Your task to perform on an android device: Set the phone to "Do not disturb". Image 0: 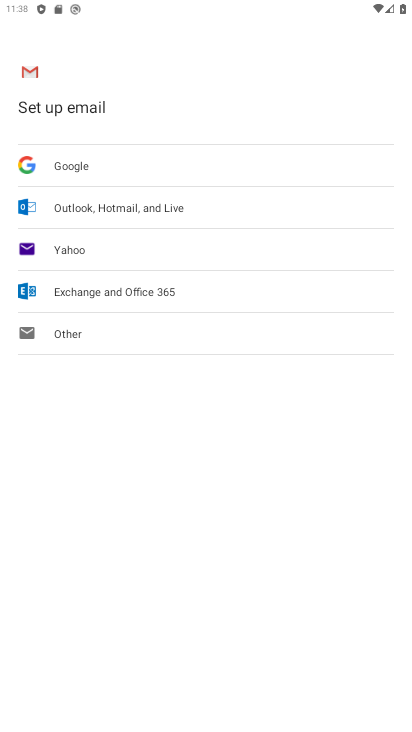
Step 0: press home button
Your task to perform on an android device: Set the phone to "Do not disturb". Image 1: 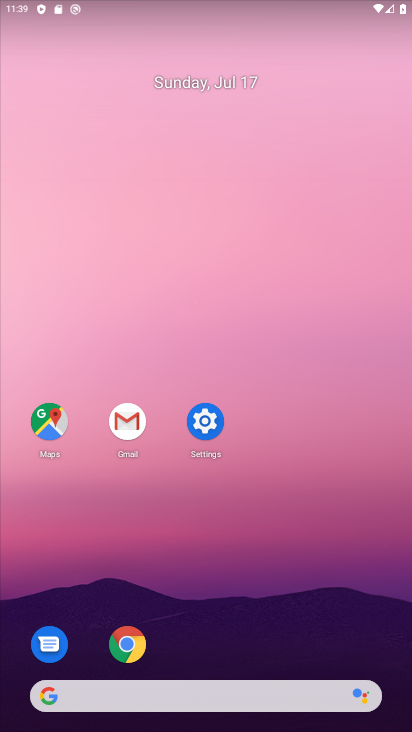
Step 1: drag from (376, 652) to (267, 132)
Your task to perform on an android device: Set the phone to "Do not disturb". Image 2: 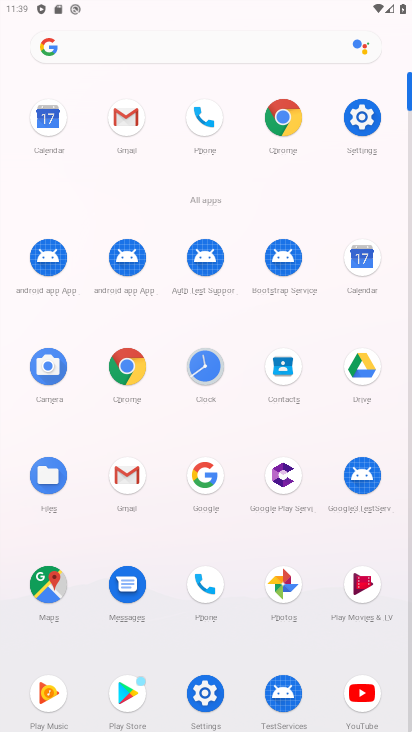
Step 2: click (350, 122)
Your task to perform on an android device: Set the phone to "Do not disturb". Image 3: 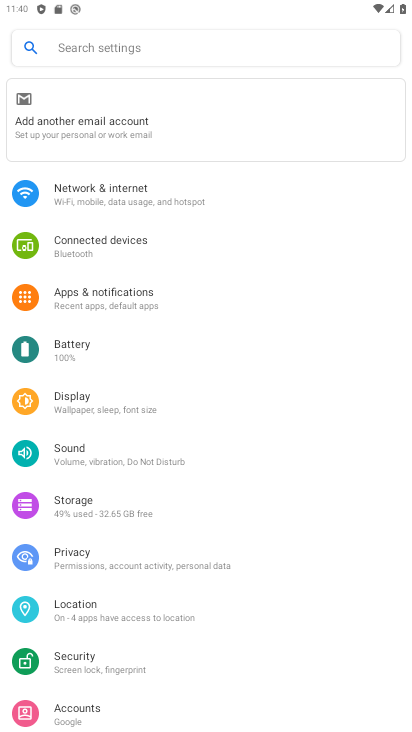
Step 3: click (101, 451)
Your task to perform on an android device: Set the phone to "Do not disturb". Image 4: 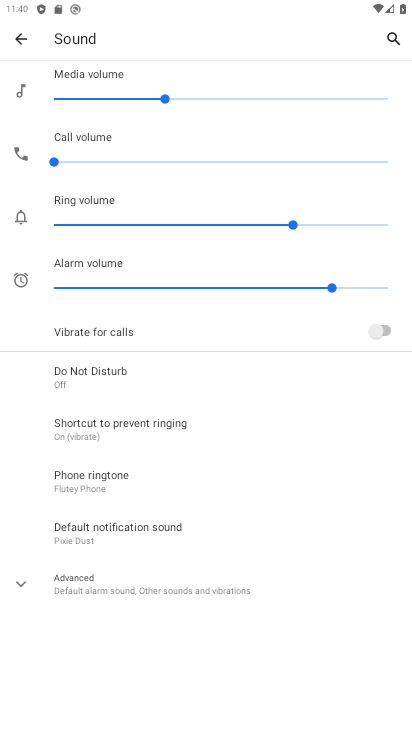
Step 4: click (93, 388)
Your task to perform on an android device: Set the phone to "Do not disturb". Image 5: 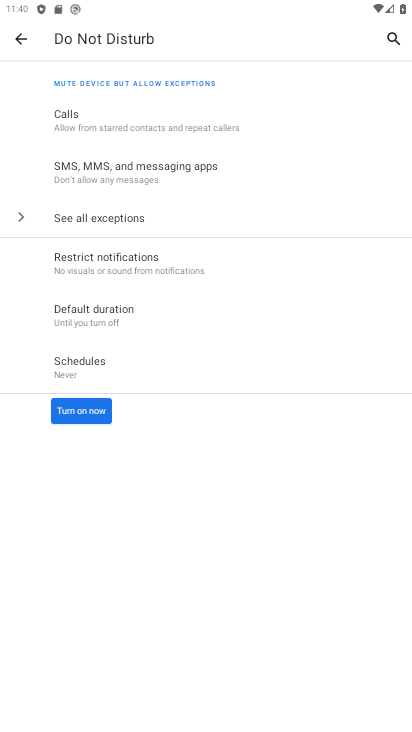
Step 5: click (95, 417)
Your task to perform on an android device: Set the phone to "Do not disturb". Image 6: 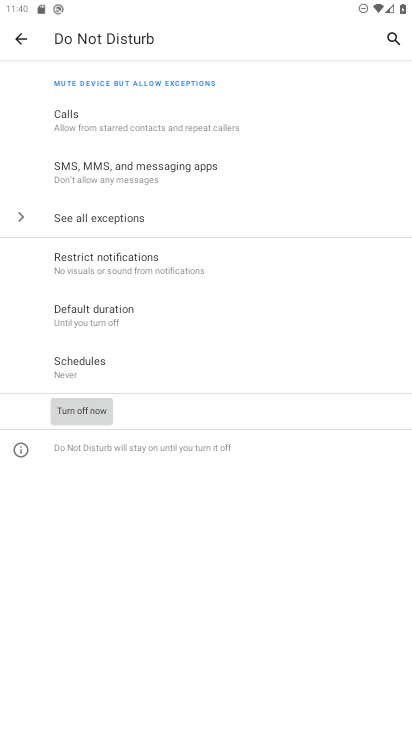
Step 6: task complete